Your task to perform on an android device: Go to Maps Image 0: 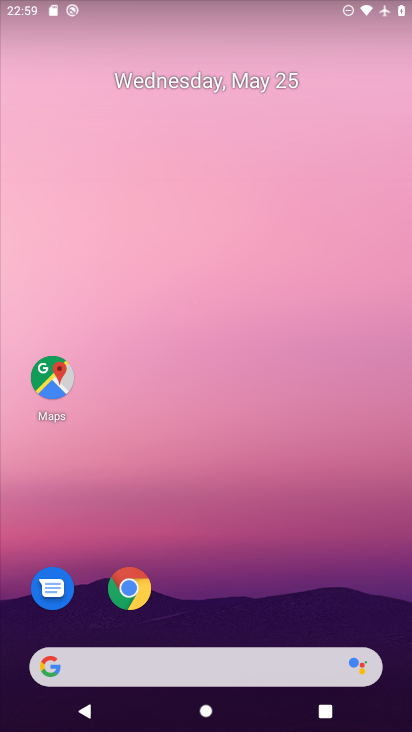
Step 0: click (33, 382)
Your task to perform on an android device: Go to Maps Image 1: 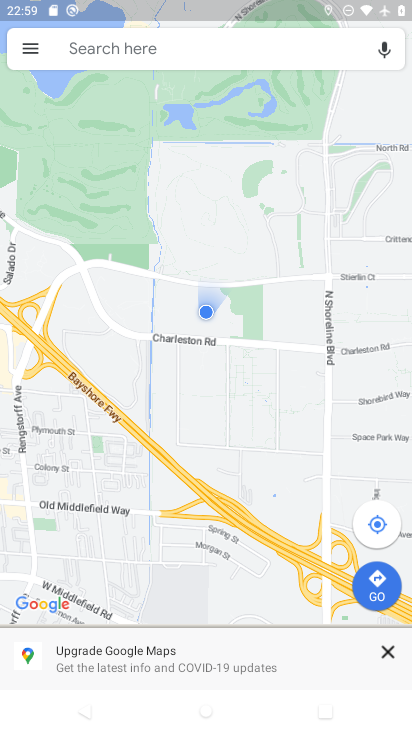
Step 1: task complete